Your task to perform on an android device: see tabs open on other devices in the chrome app Image 0: 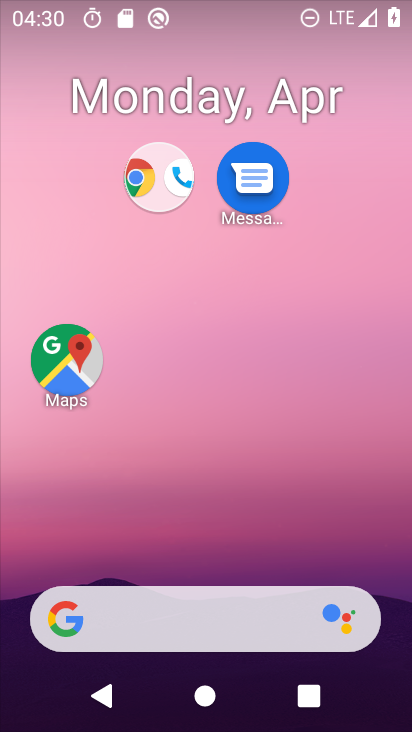
Step 0: drag from (309, 613) to (268, 2)
Your task to perform on an android device: see tabs open on other devices in the chrome app Image 1: 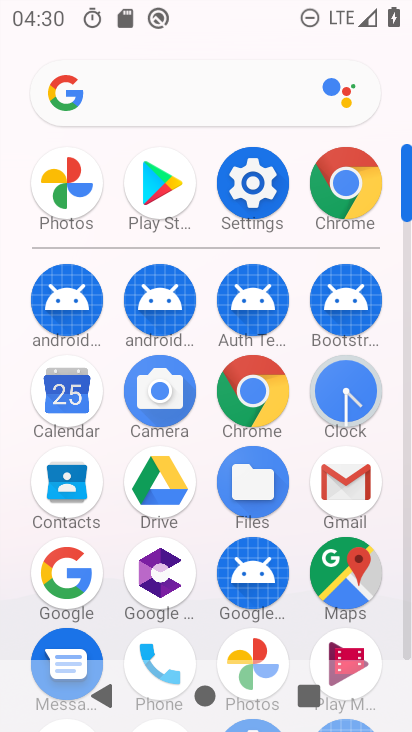
Step 1: click (253, 396)
Your task to perform on an android device: see tabs open on other devices in the chrome app Image 2: 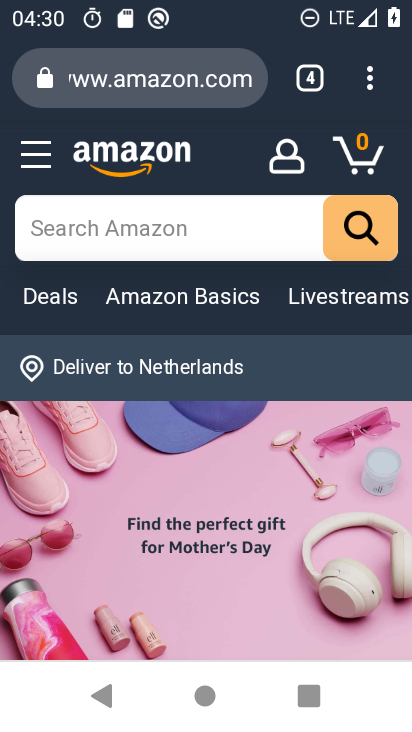
Step 2: task complete